Your task to perform on an android device: Go to Reddit.com Image 0: 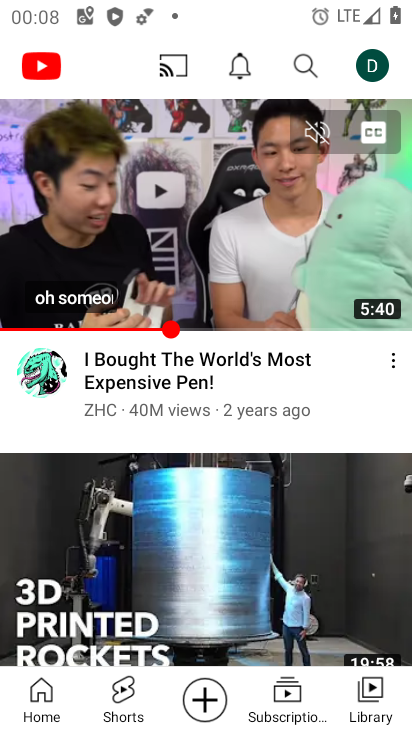
Step 0: press home button
Your task to perform on an android device: Go to Reddit.com Image 1: 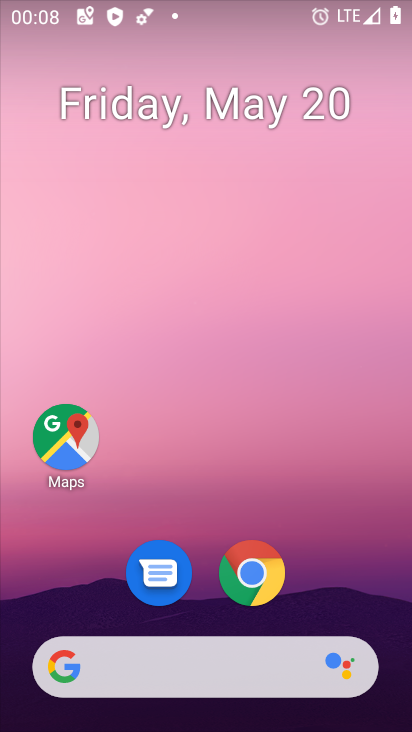
Step 1: click (240, 582)
Your task to perform on an android device: Go to Reddit.com Image 2: 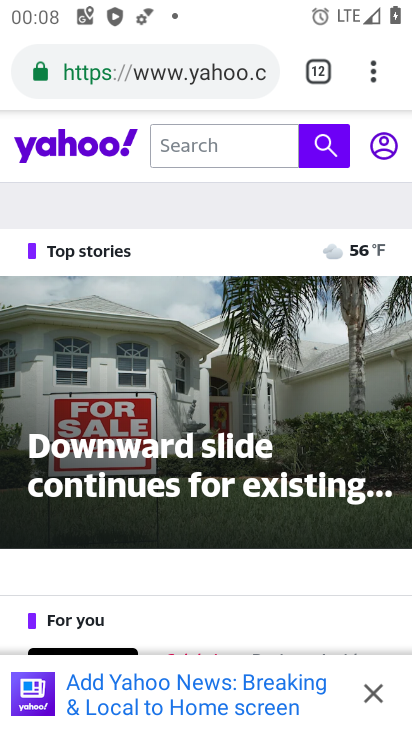
Step 2: click (326, 65)
Your task to perform on an android device: Go to Reddit.com Image 3: 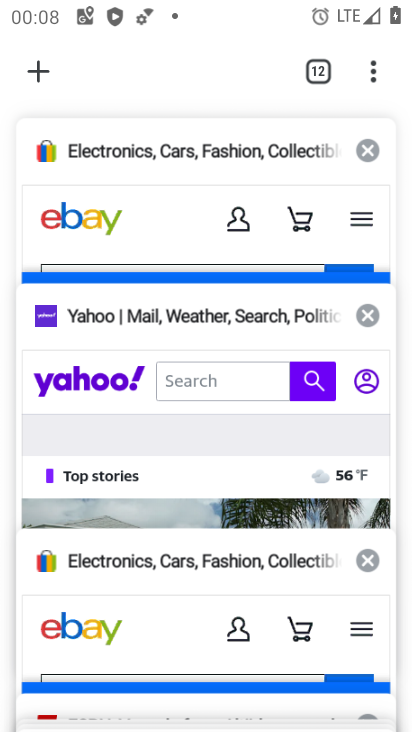
Step 3: click (34, 66)
Your task to perform on an android device: Go to Reddit.com Image 4: 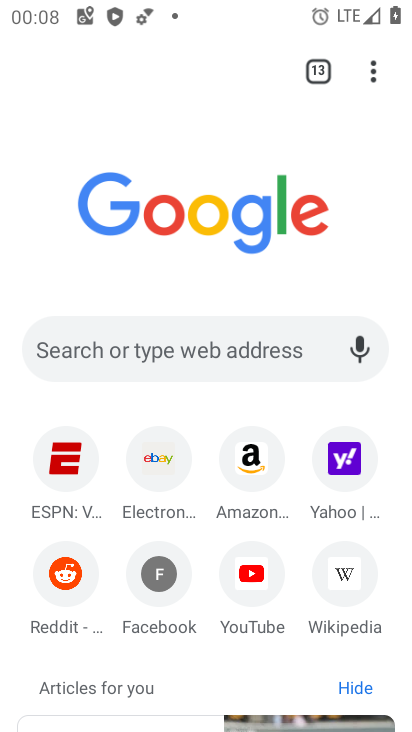
Step 4: click (188, 376)
Your task to perform on an android device: Go to Reddit.com Image 5: 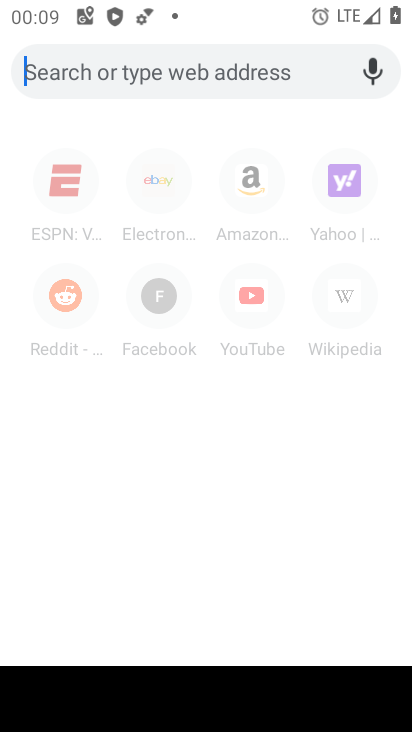
Step 5: type "Reddit.com"
Your task to perform on an android device: Go to Reddit.com Image 6: 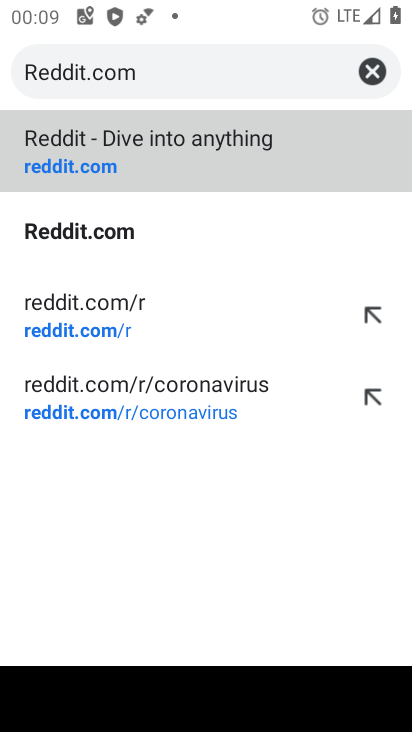
Step 6: click (73, 224)
Your task to perform on an android device: Go to Reddit.com Image 7: 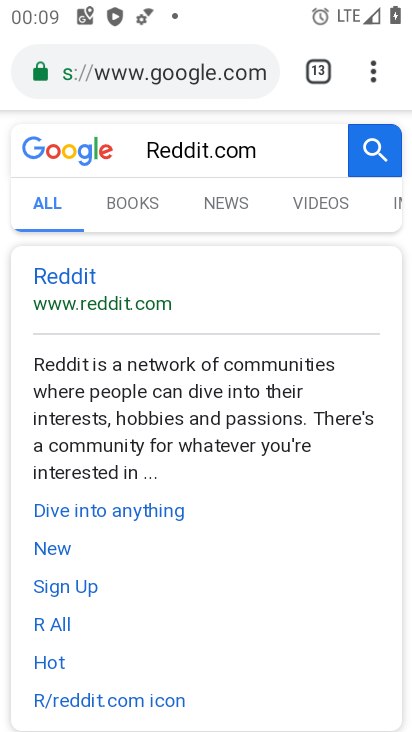
Step 7: click (75, 265)
Your task to perform on an android device: Go to Reddit.com Image 8: 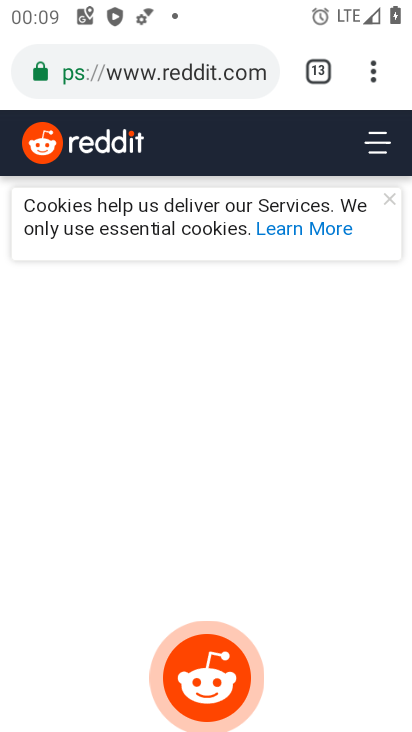
Step 8: task complete